Your task to perform on an android device: change the upload size in google photos Image 0: 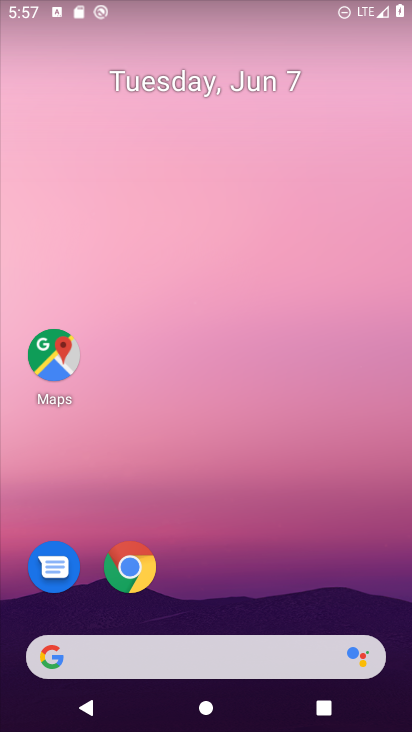
Step 0: drag from (241, 636) to (273, 46)
Your task to perform on an android device: change the upload size in google photos Image 1: 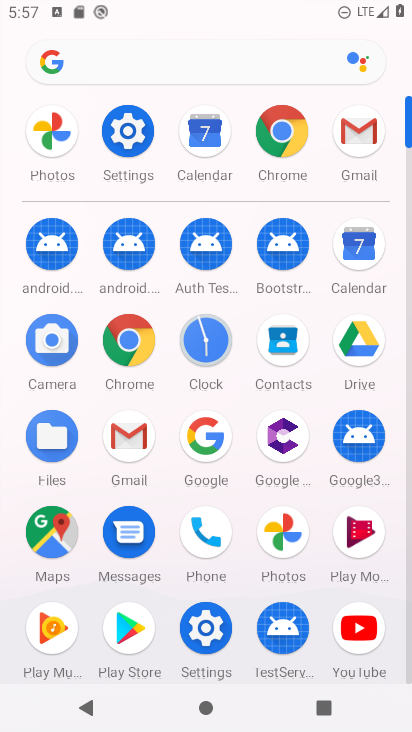
Step 1: click (283, 532)
Your task to perform on an android device: change the upload size in google photos Image 2: 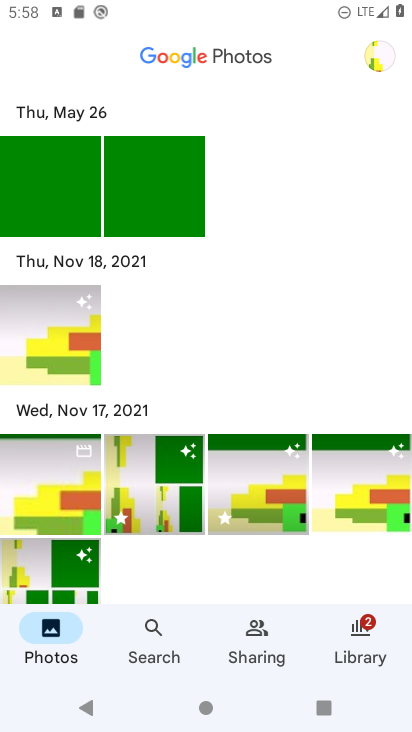
Step 2: click (378, 44)
Your task to perform on an android device: change the upload size in google photos Image 3: 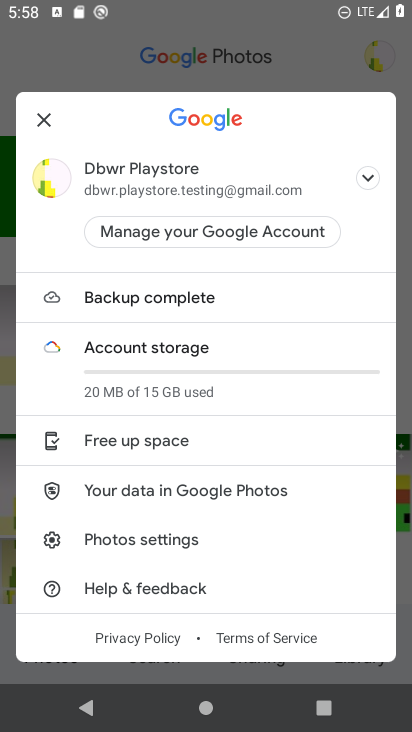
Step 3: click (193, 539)
Your task to perform on an android device: change the upload size in google photos Image 4: 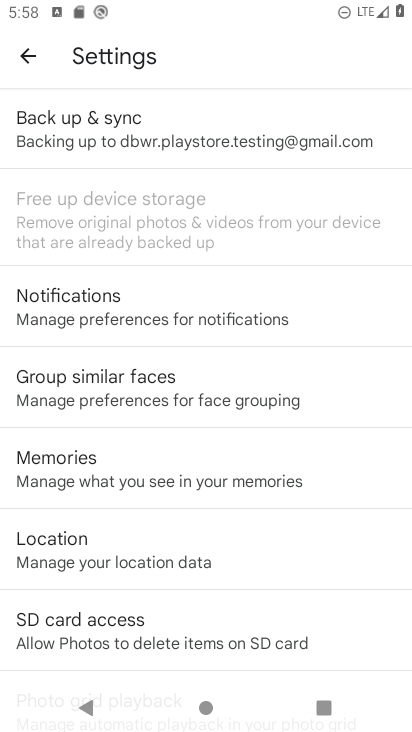
Step 4: click (178, 122)
Your task to perform on an android device: change the upload size in google photos Image 5: 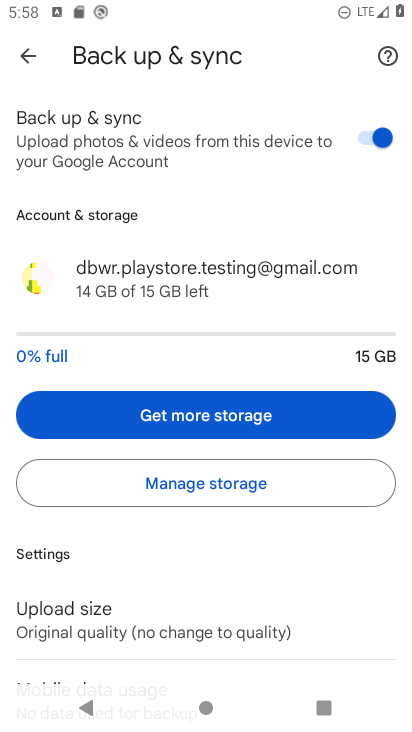
Step 5: drag from (196, 620) to (199, 253)
Your task to perform on an android device: change the upload size in google photos Image 6: 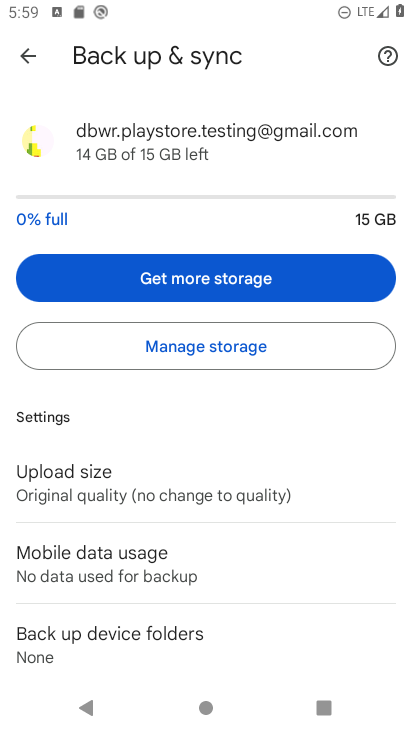
Step 6: click (153, 496)
Your task to perform on an android device: change the upload size in google photos Image 7: 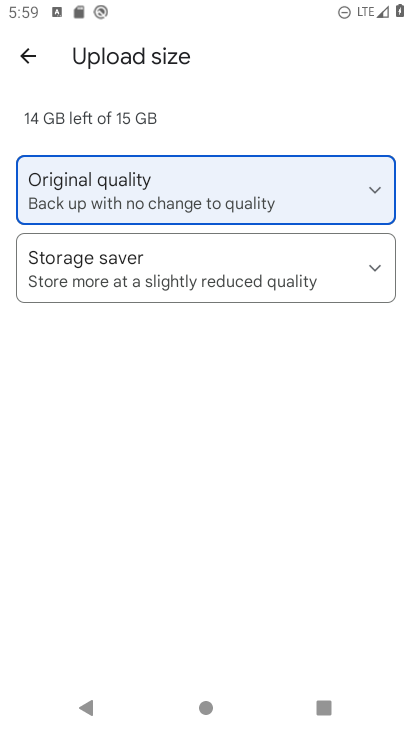
Step 7: click (150, 280)
Your task to perform on an android device: change the upload size in google photos Image 8: 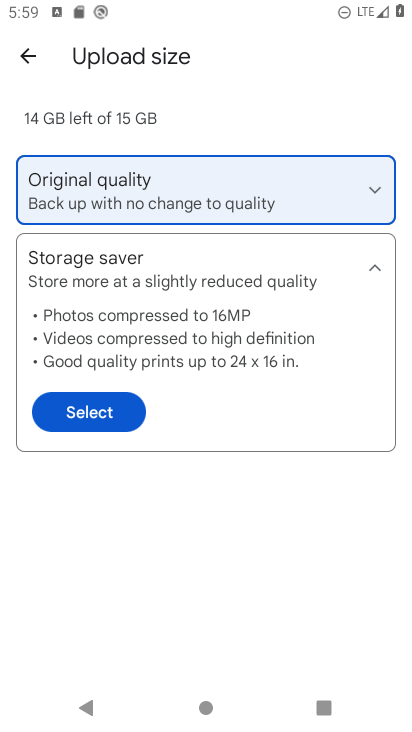
Step 8: task complete